Your task to perform on an android device: Check the new Jordans on Nike. Image 0: 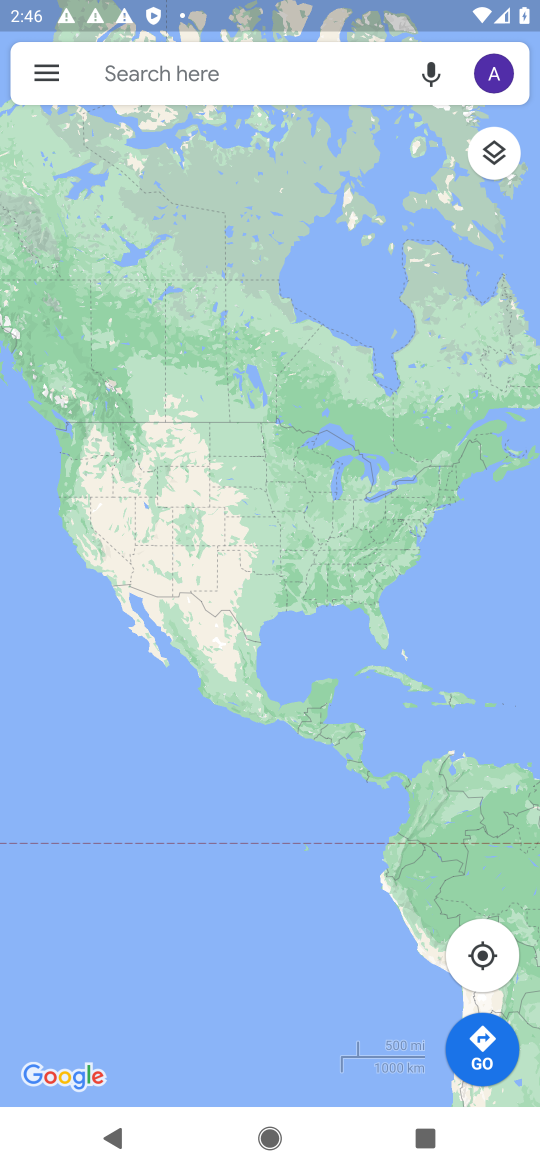
Step 0: press home button
Your task to perform on an android device: Check the new Jordans on Nike. Image 1: 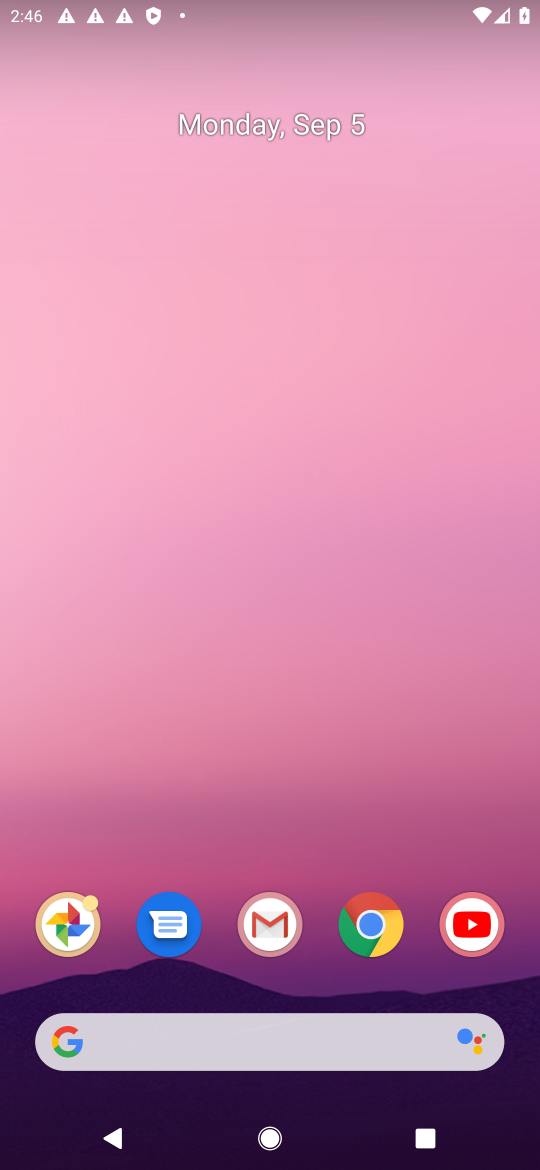
Step 1: drag from (352, 1021) to (315, 28)
Your task to perform on an android device: Check the new Jordans on Nike. Image 2: 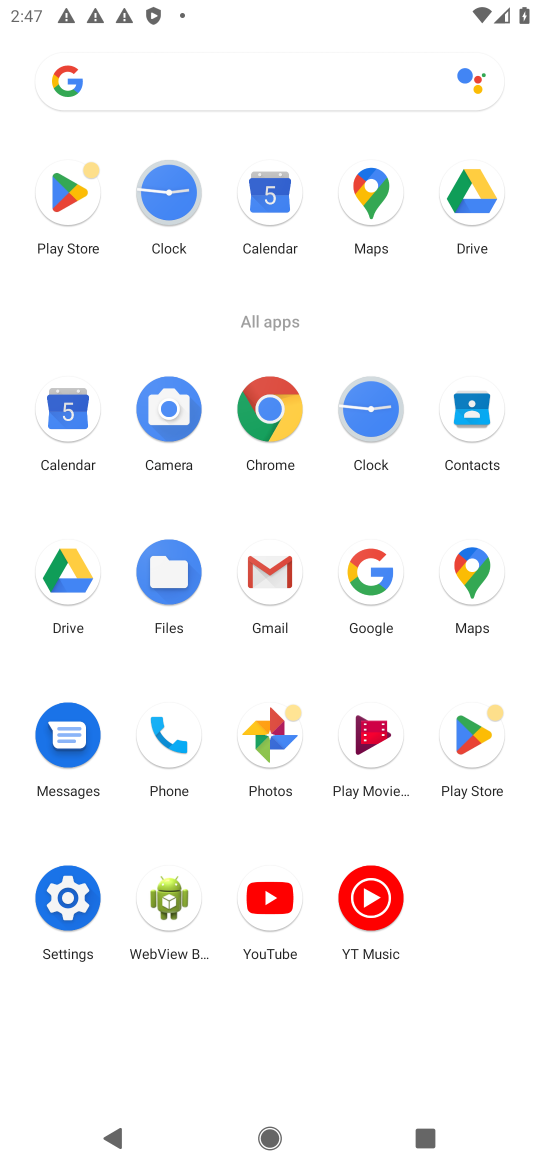
Step 2: click (269, 433)
Your task to perform on an android device: Check the new Jordans on Nike. Image 3: 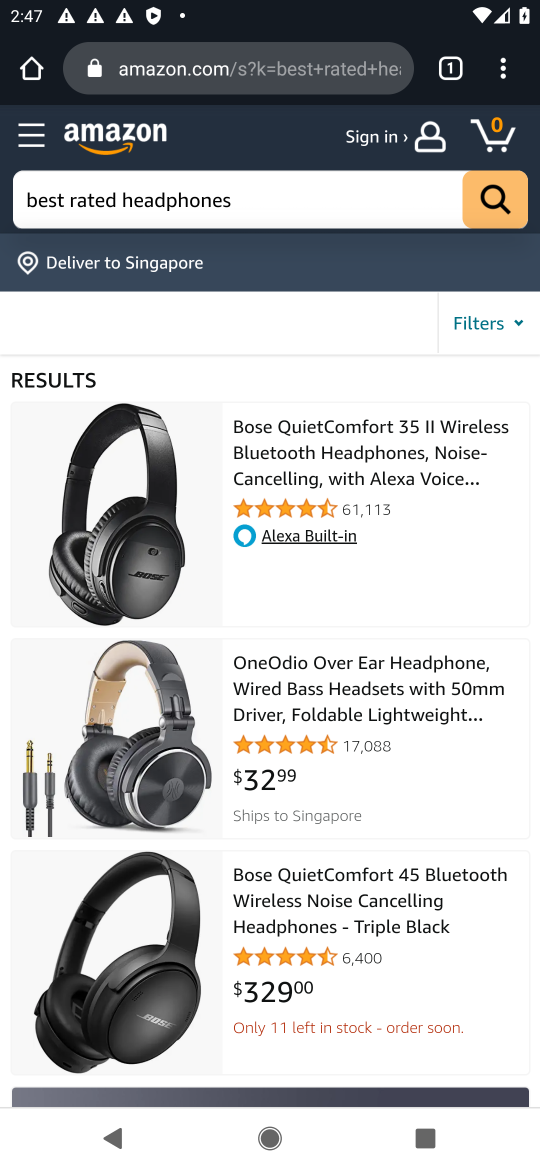
Step 3: click (339, 68)
Your task to perform on an android device: Check the new Jordans on Nike. Image 4: 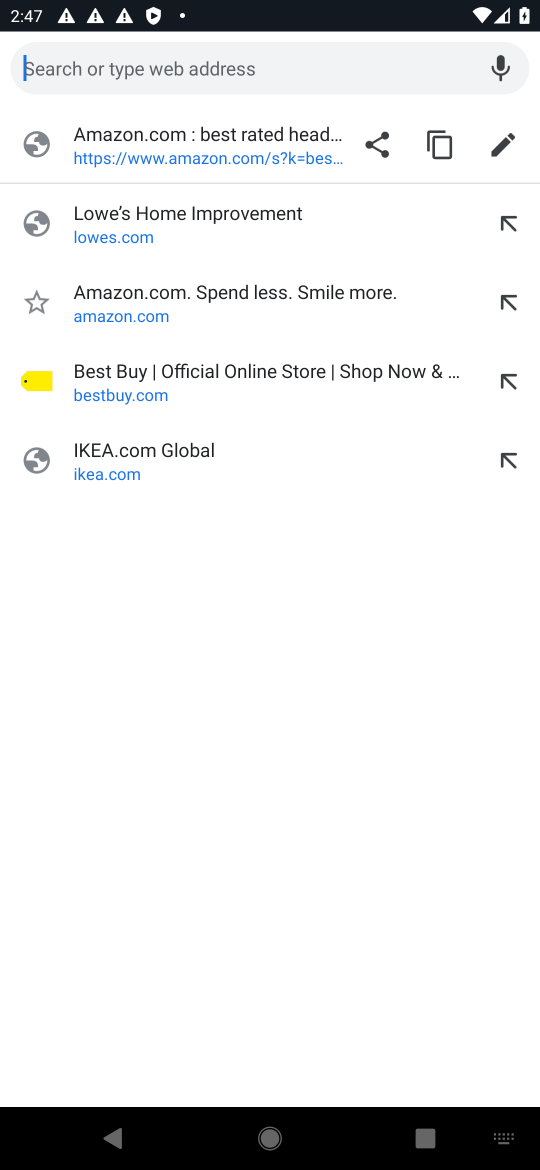
Step 4: type "nike"
Your task to perform on an android device: Check the new Jordans on Nike. Image 5: 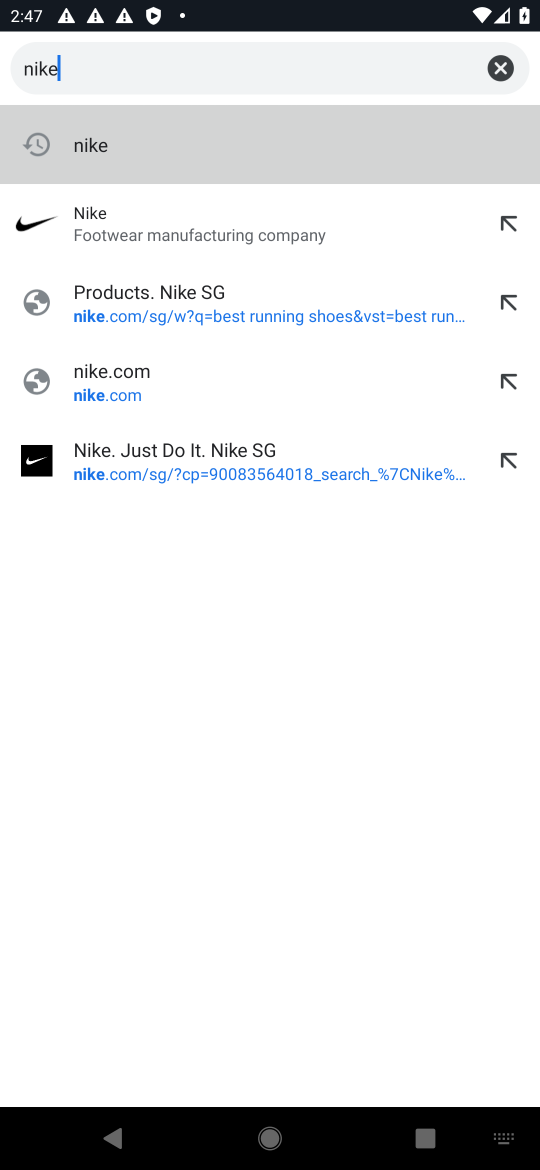
Step 5: click (54, 230)
Your task to perform on an android device: Check the new Jordans on Nike. Image 6: 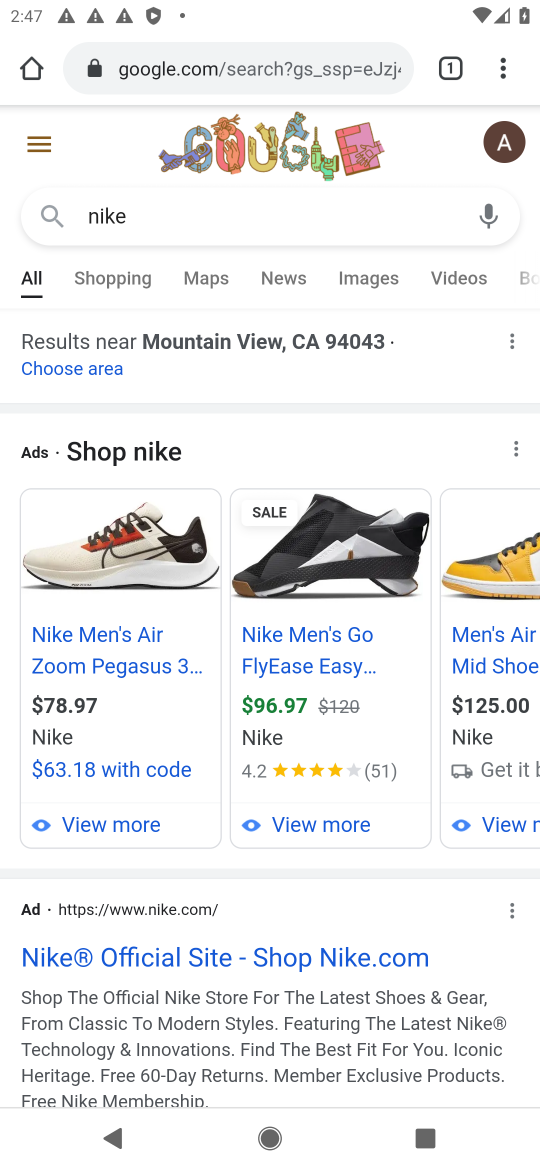
Step 6: drag from (179, 969) to (234, 496)
Your task to perform on an android device: Check the new Jordans on Nike. Image 7: 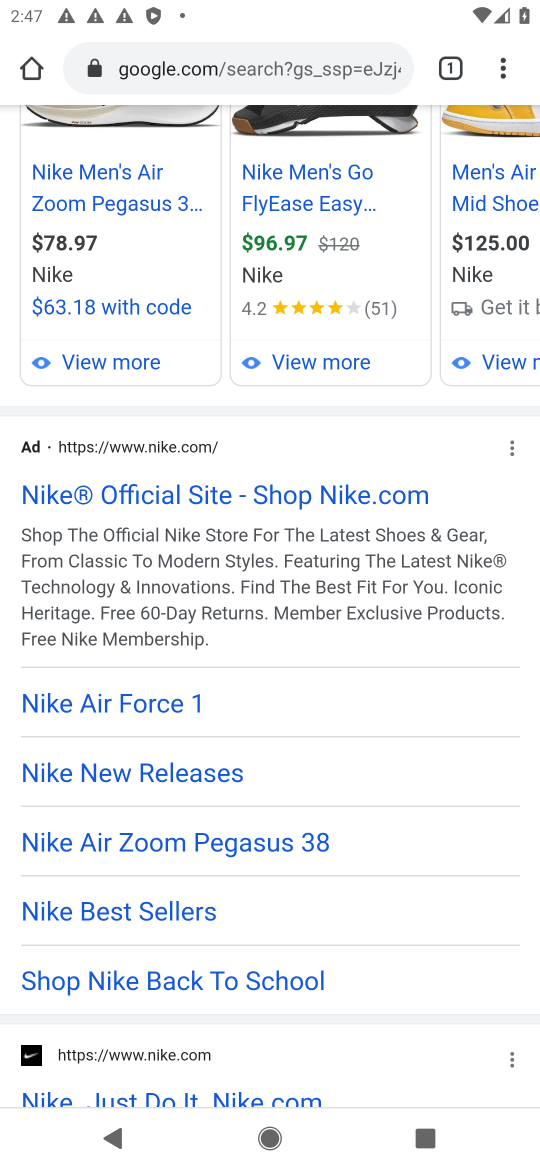
Step 7: drag from (160, 1093) to (190, 683)
Your task to perform on an android device: Check the new Jordans on Nike. Image 8: 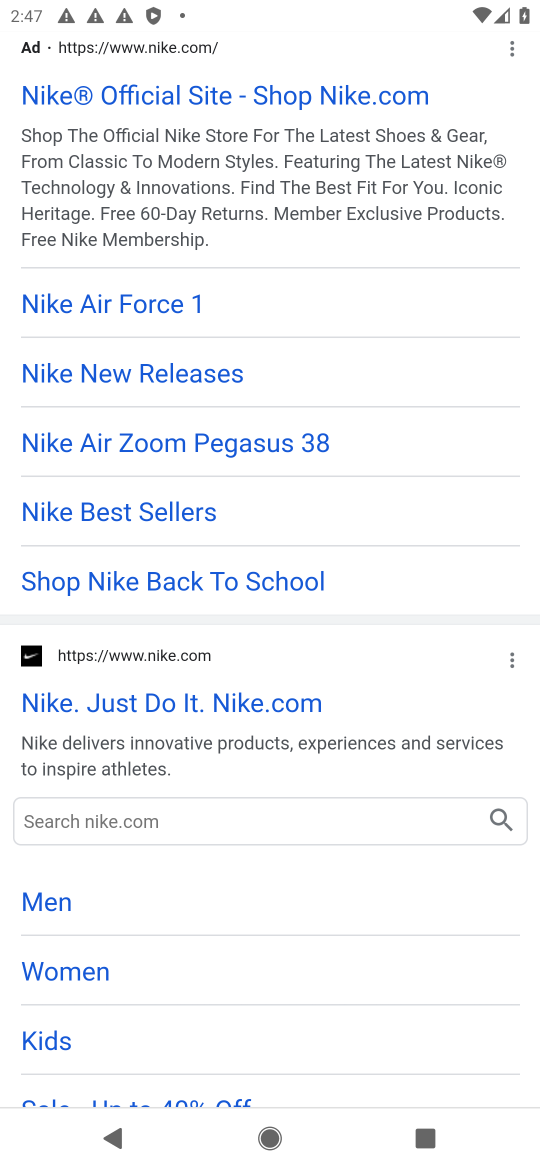
Step 8: click (182, 698)
Your task to perform on an android device: Check the new Jordans on Nike. Image 9: 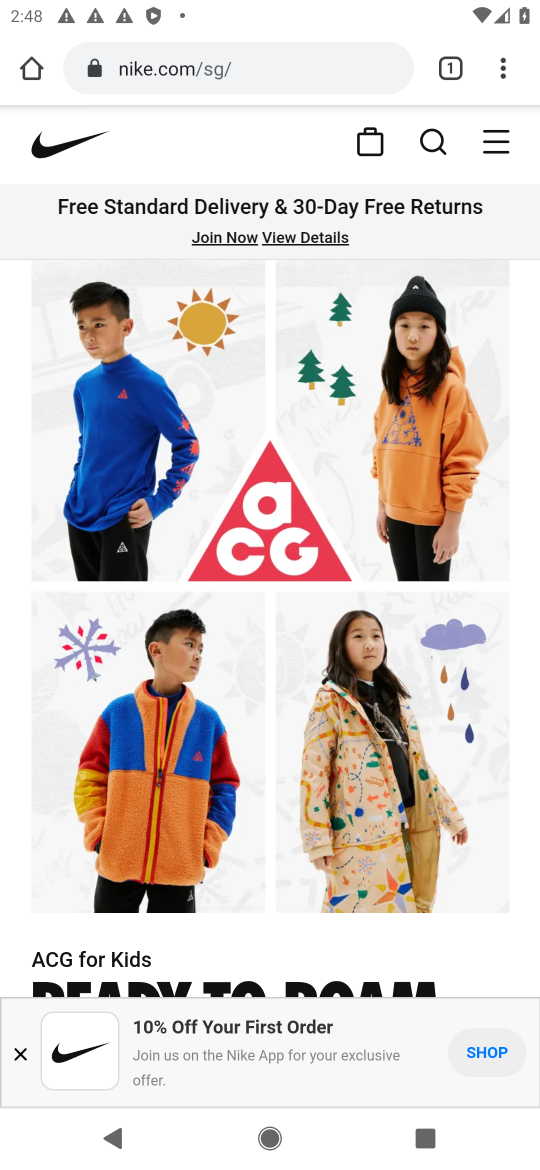
Step 9: click (439, 142)
Your task to perform on an android device: Check the new Jordans on Nike. Image 10: 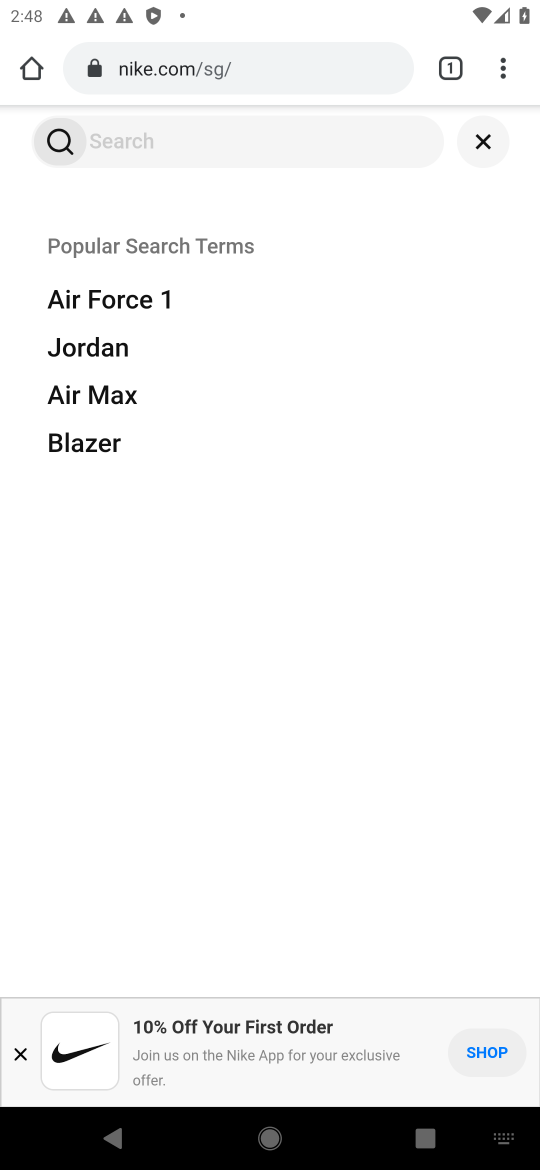
Step 10: type "new jordans"
Your task to perform on an android device: Check the new Jordans on Nike. Image 11: 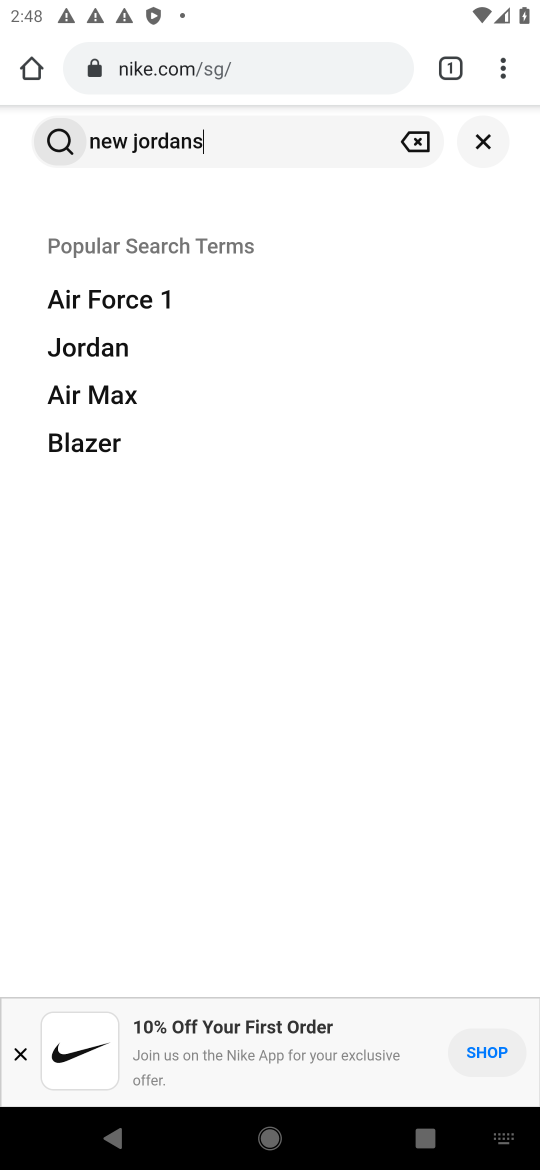
Step 11: click (60, 147)
Your task to perform on an android device: Check the new Jordans on Nike. Image 12: 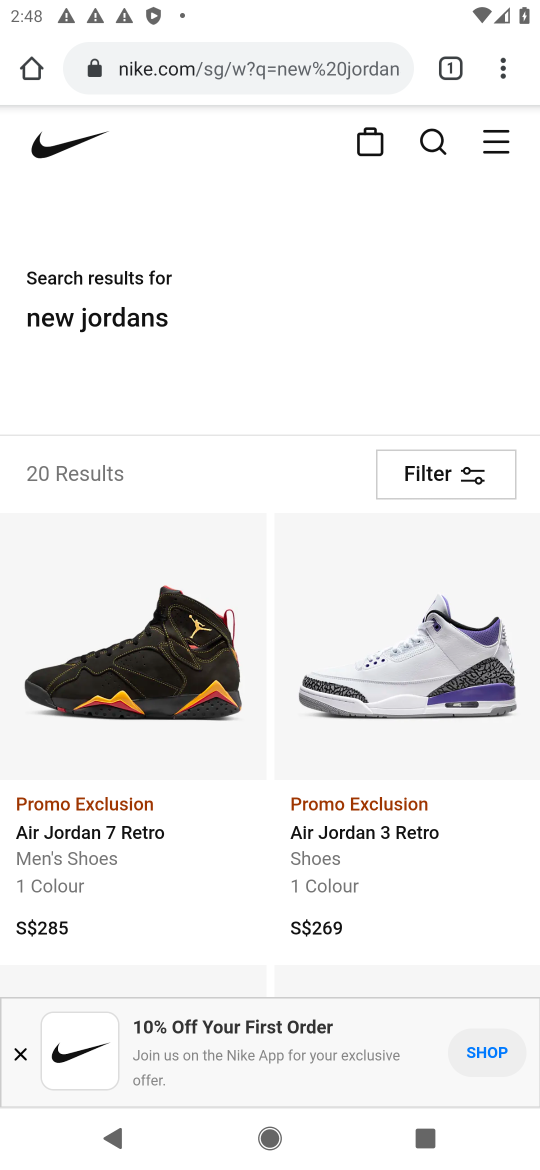
Step 12: task complete